Your task to perform on an android device: change the clock display to analog Image 0: 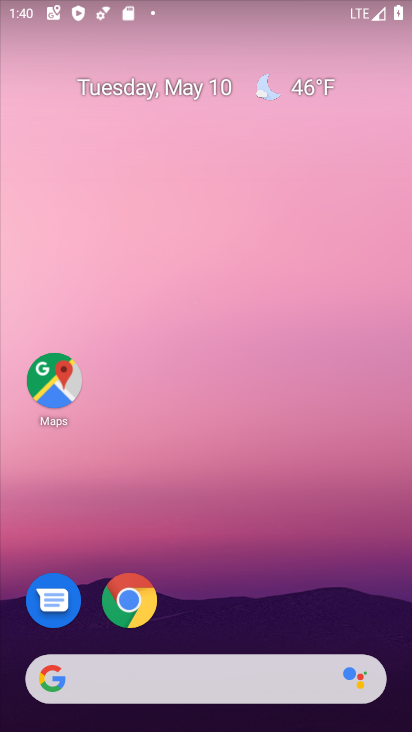
Step 0: drag from (179, 609) to (244, 187)
Your task to perform on an android device: change the clock display to analog Image 1: 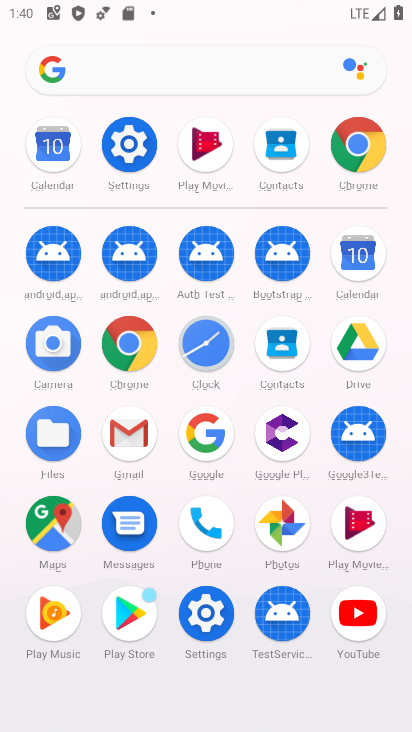
Step 1: click (203, 344)
Your task to perform on an android device: change the clock display to analog Image 2: 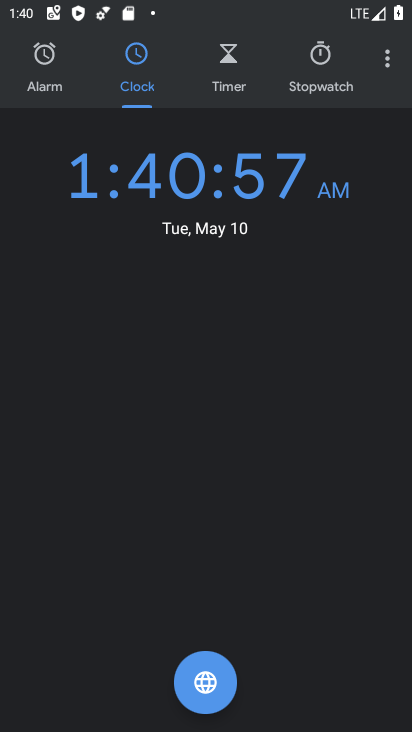
Step 2: click (385, 61)
Your task to perform on an android device: change the clock display to analog Image 3: 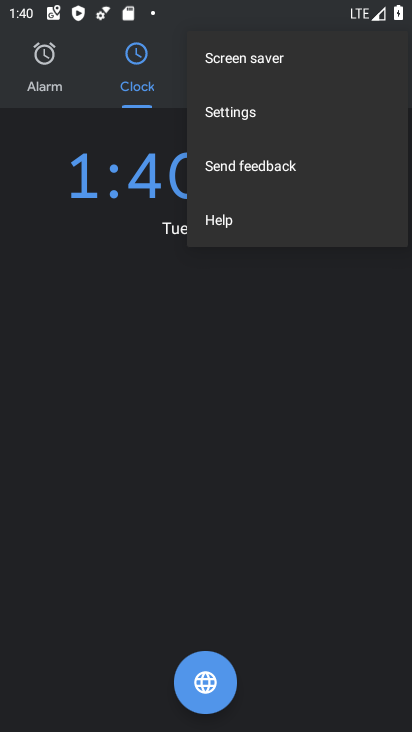
Step 3: click (215, 117)
Your task to perform on an android device: change the clock display to analog Image 4: 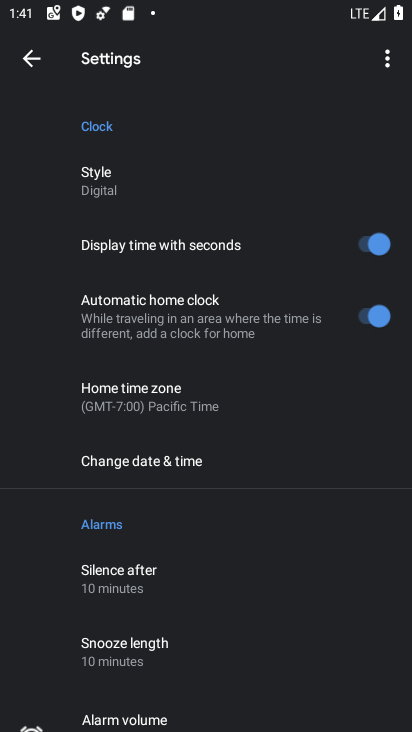
Step 4: click (110, 177)
Your task to perform on an android device: change the clock display to analog Image 5: 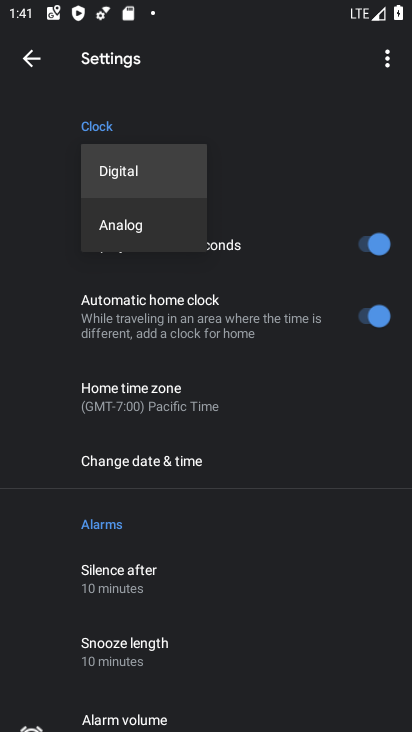
Step 5: click (163, 226)
Your task to perform on an android device: change the clock display to analog Image 6: 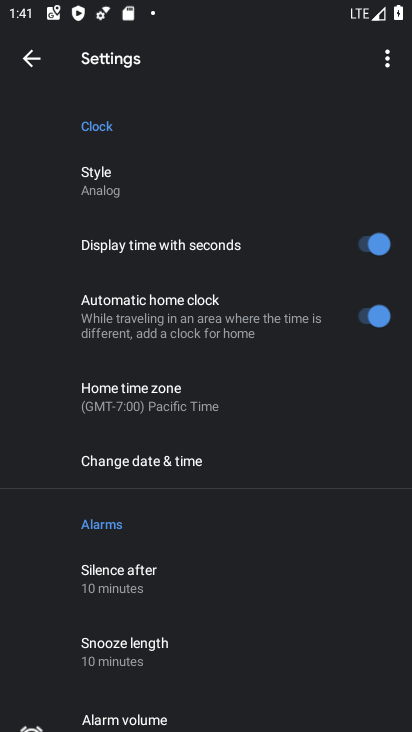
Step 6: task complete